Your task to perform on an android device: find which apps use the phone's location Image 0: 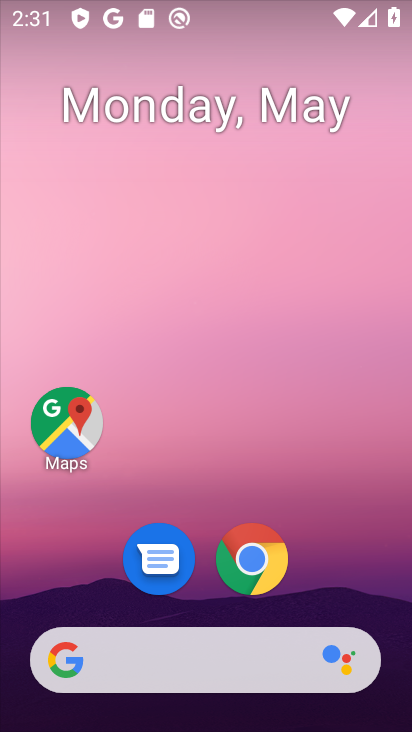
Step 0: drag from (334, 605) to (324, 43)
Your task to perform on an android device: find which apps use the phone's location Image 1: 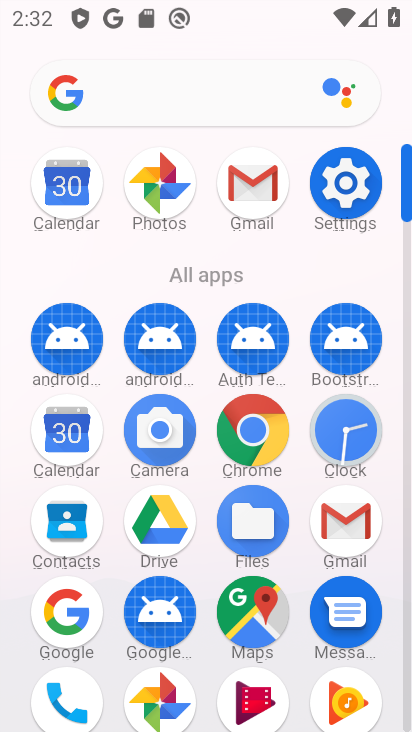
Step 1: click (339, 187)
Your task to perform on an android device: find which apps use the phone's location Image 2: 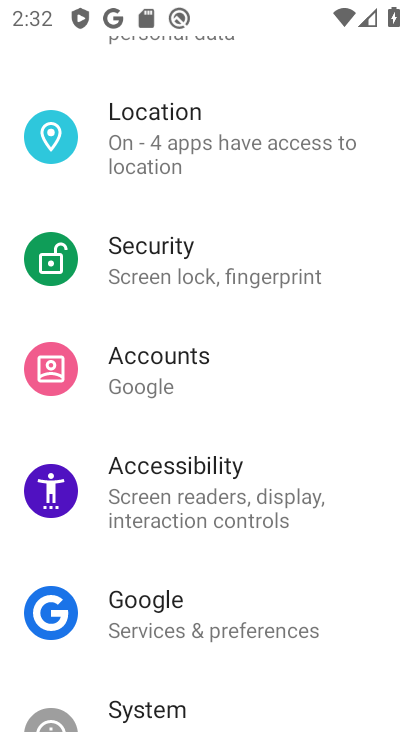
Step 2: click (197, 148)
Your task to perform on an android device: find which apps use the phone's location Image 3: 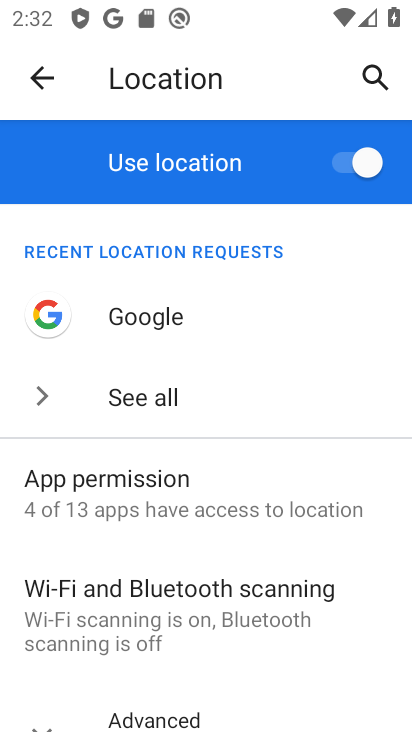
Step 3: click (176, 473)
Your task to perform on an android device: find which apps use the phone's location Image 4: 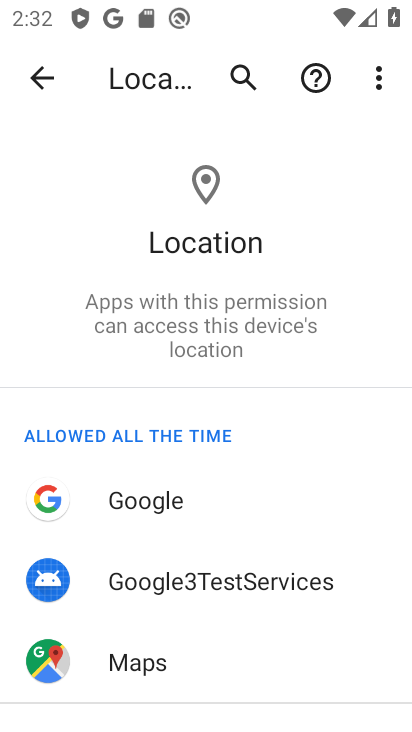
Step 4: task complete